Your task to perform on an android device: check android version Image 0: 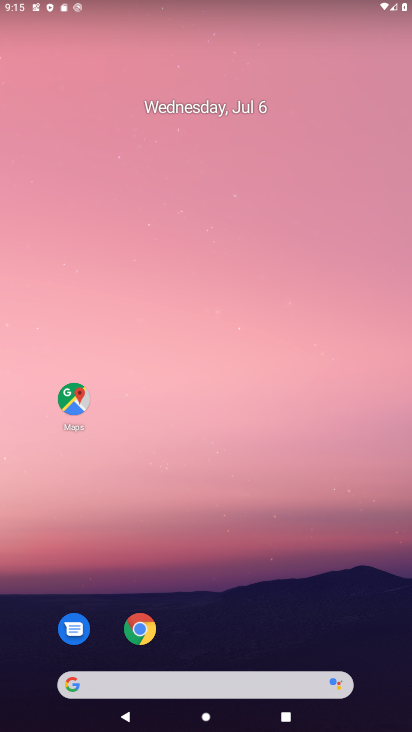
Step 0: drag from (195, 641) to (195, 62)
Your task to perform on an android device: check android version Image 1: 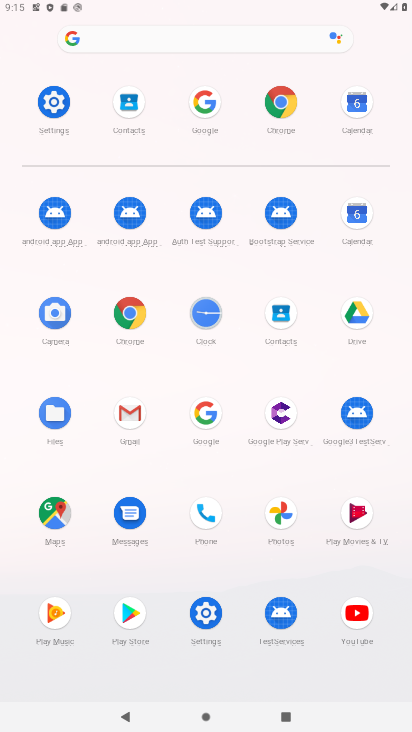
Step 1: click (41, 100)
Your task to perform on an android device: check android version Image 2: 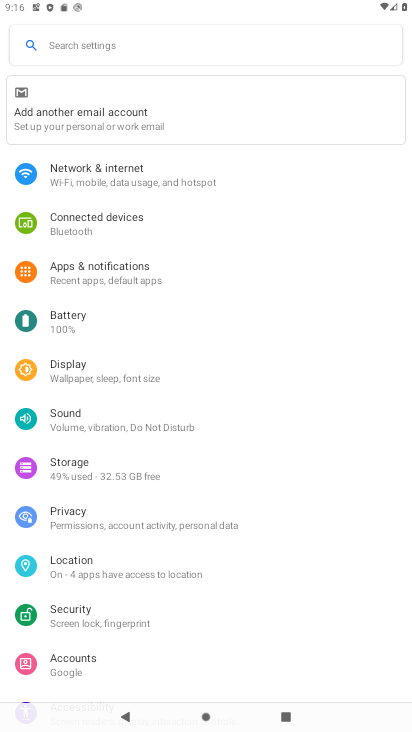
Step 2: drag from (125, 628) to (161, 217)
Your task to perform on an android device: check android version Image 3: 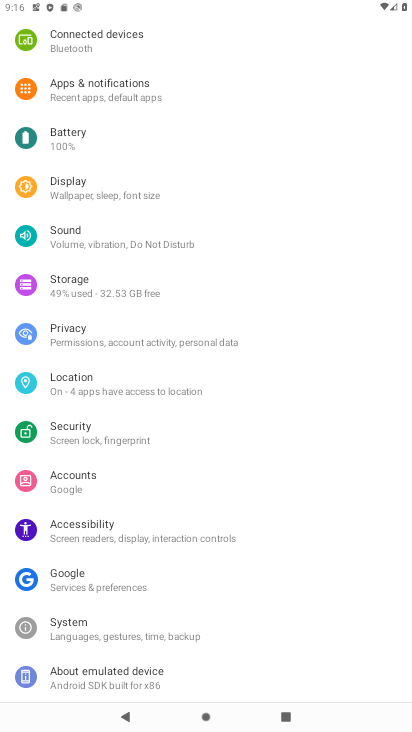
Step 3: click (107, 682)
Your task to perform on an android device: check android version Image 4: 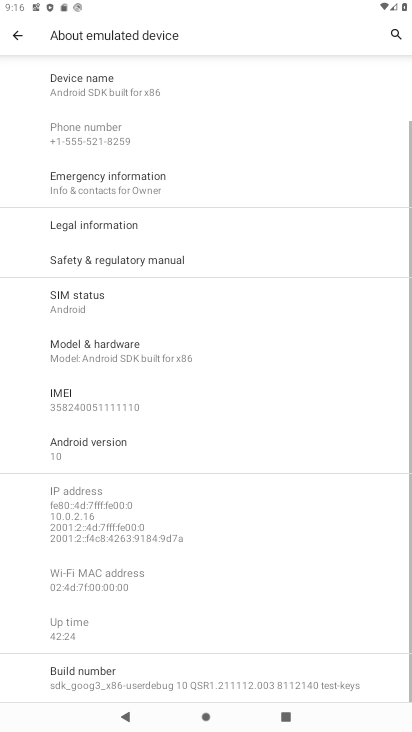
Step 4: drag from (141, 322) to (179, 498)
Your task to perform on an android device: check android version Image 5: 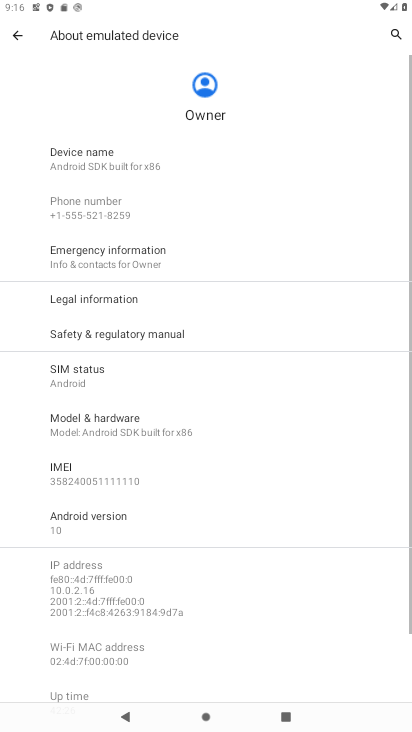
Step 5: click (135, 533)
Your task to perform on an android device: check android version Image 6: 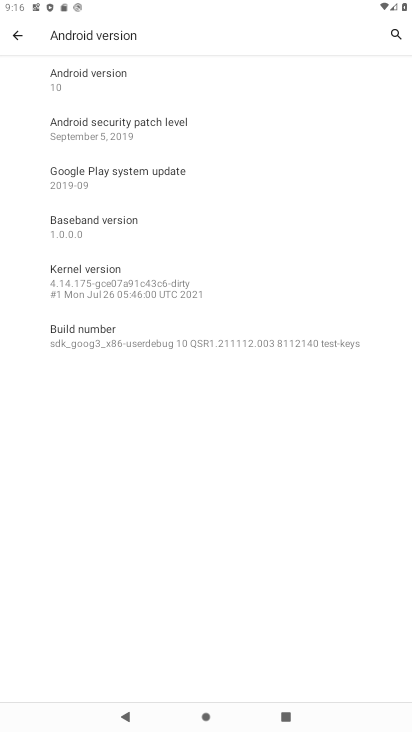
Step 6: click (91, 78)
Your task to perform on an android device: check android version Image 7: 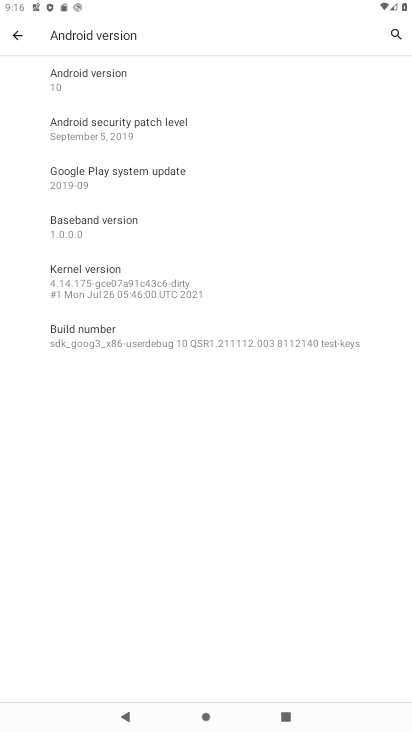
Step 7: task complete